Your task to perform on an android device: Open calendar and show me the fourth week of next month Image 0: 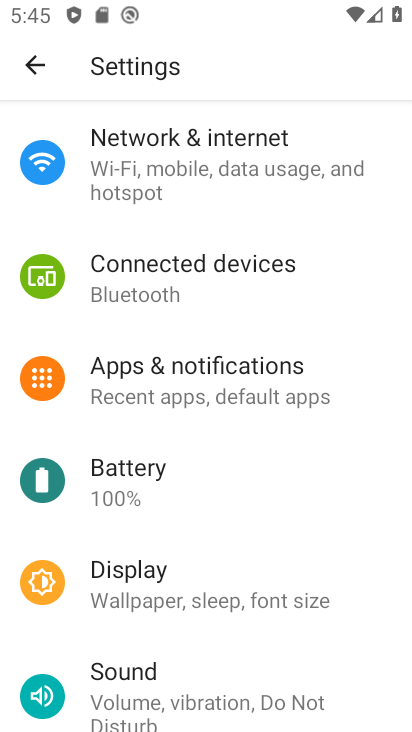
Step 0: press back button
Your task to perform on an android device: Open calendar and show me the fourth week of next month Image 1: 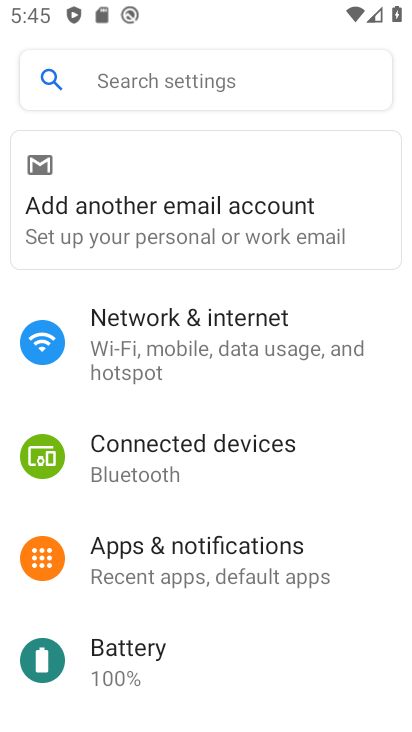
Step 1: press back button
Your task to perform on an android device: Open calendar and show me the fourth week of next month Image 2: 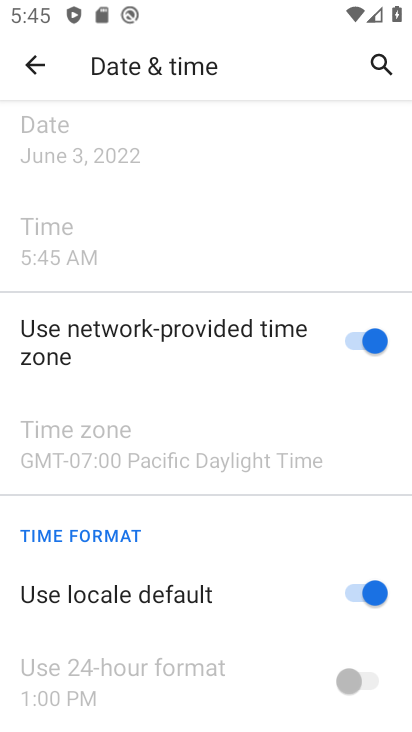
Step 2: press home button
Your task to perform on an android device: Open calendar and show me the fourth week of next month Image 3: 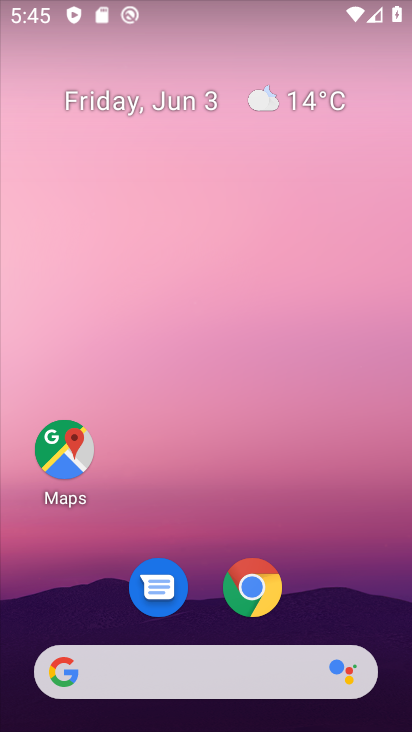
Step 3: drag from (317, 587) to (255, 40)
Your task to perform on an android device: Open calendar and show me the fourth week of next month Image 4: 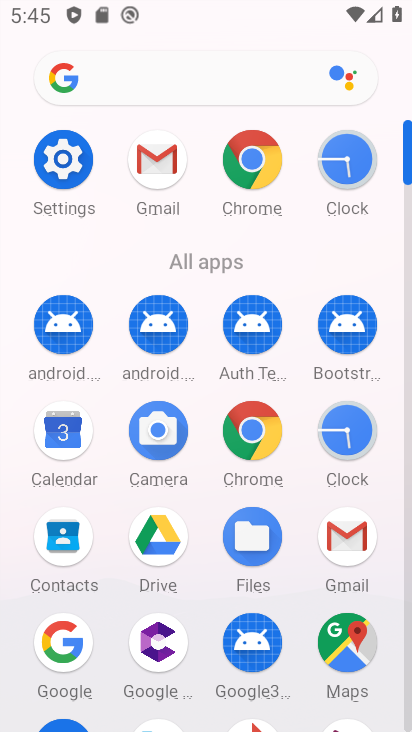
Step 4: drag from (11, 633) to (31, 255)
Your task to perform on an android device: Open calendar and show me the fourth week of next month Image 5: 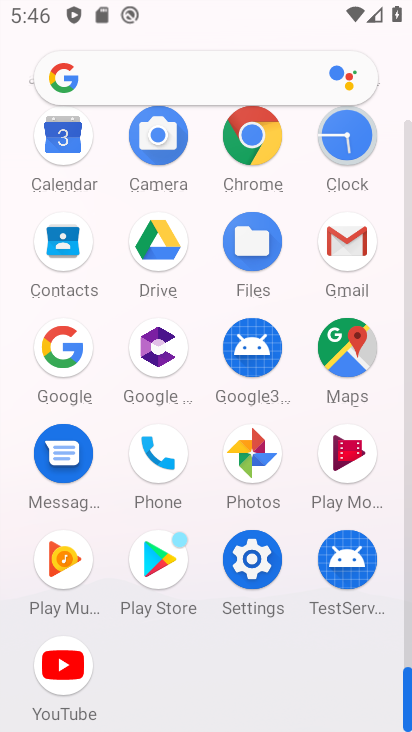
Step 5: click (56, 131)
Your task to perform on an android device: Open calendar and show me the fourth week of next month Image 6: 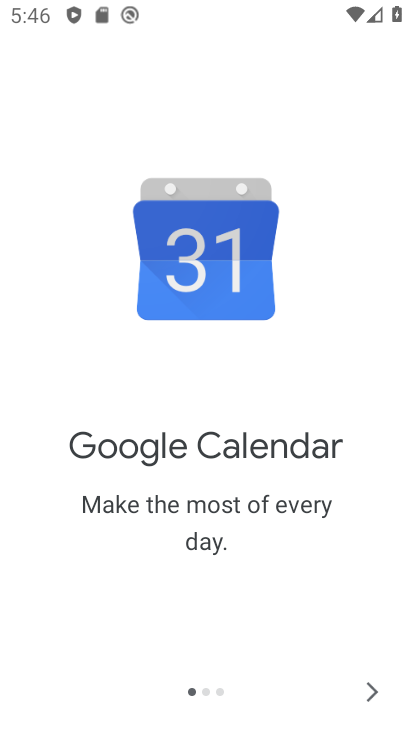
Step 6: click (374, 695)
Your task to perform on an android device: Open calendar and show me the fourth week of next month Image 7: 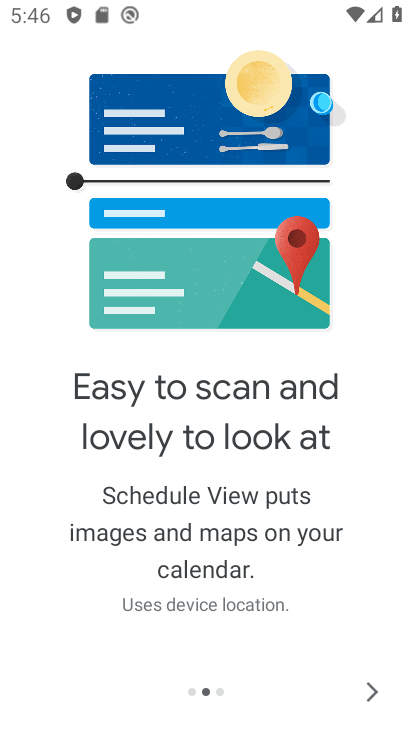
Step 7: click (368, 691)
Your task to perform on an android device: Open calendar and show me the fourth week of next month Image 8: 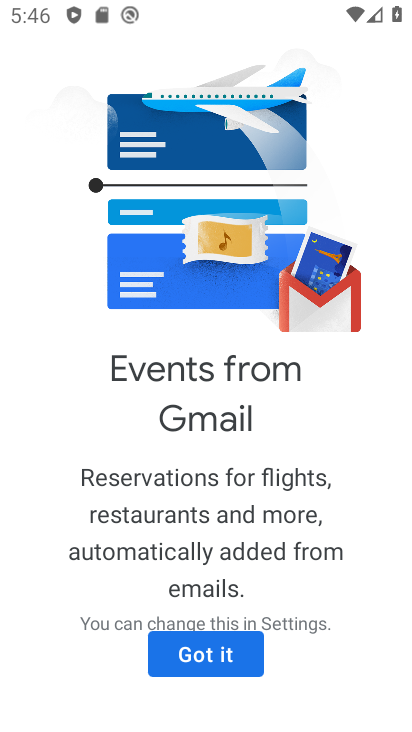
Step 8: click (236, 650)
Your task to perform on an android device: Open calendar and show me the fourth week of next month Image 9: 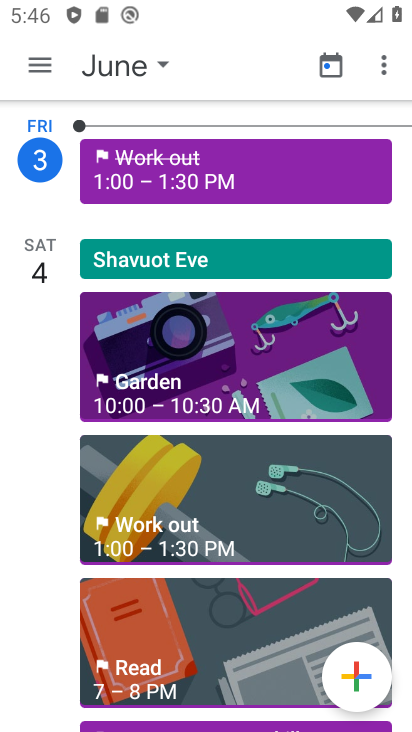
Step 9: click (123, 63)
Your task to perform on an android device: Open calendar and show me the fourth week of next month Image 10: 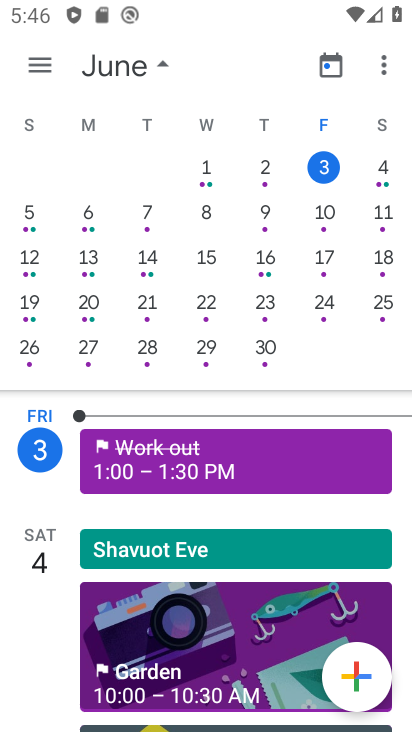
Step 10: drag from (390, 262) to (4, 244)
Your task to perform on an android device: Open calendar and show me the fourth week of next month Image 11: 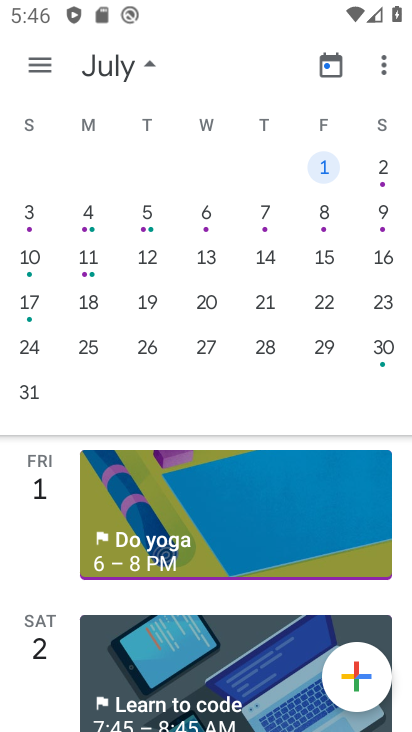
Step 11: click (29, 299)
Your task to perform on an android device: Open calendar and show me the fourth week of next month Image 12: 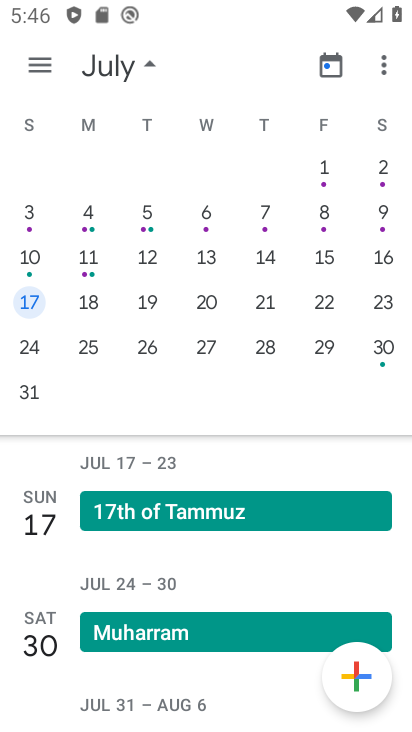
Step 12: click (42, 63)
Your task to perform on an android device: Open calendar and show me the fourth week of next month Image 13: 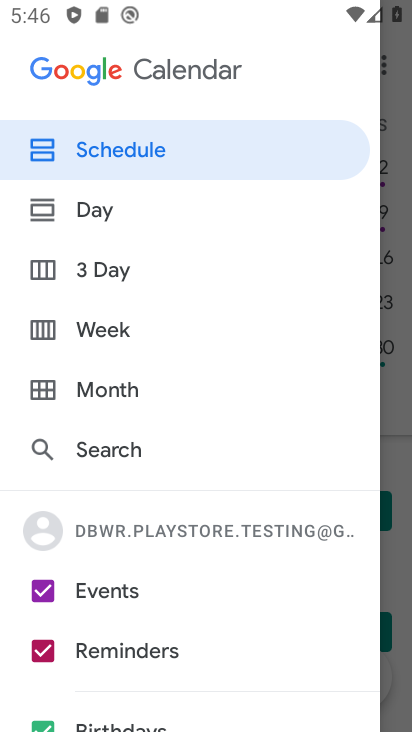
Step 13: click (120, 319)
Your task to perform on an android device: Open calendar and show me the fourth week of next month Image 14: 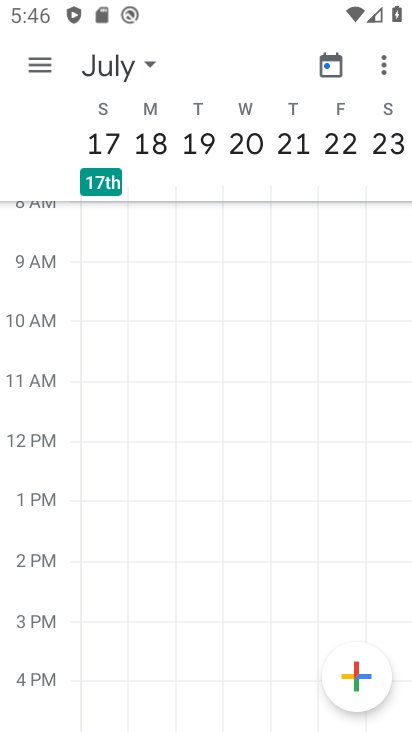
Step 14: task complete